Your task to perform on an android device: open chrome privacy settings Image 0: 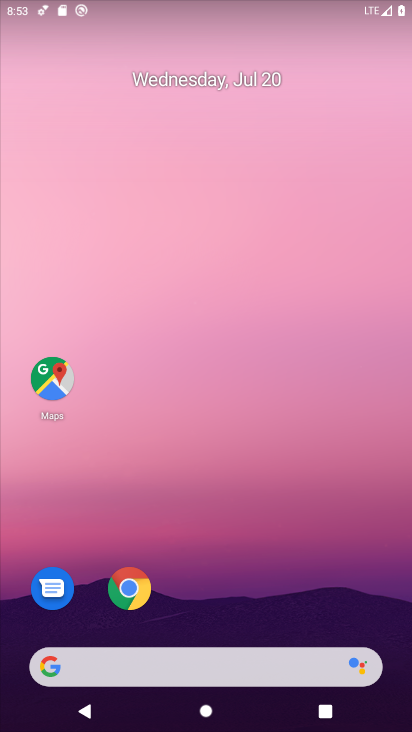
Step 0: press home button
Your task to perform on an android device: open chrome privacy settings Image 1: 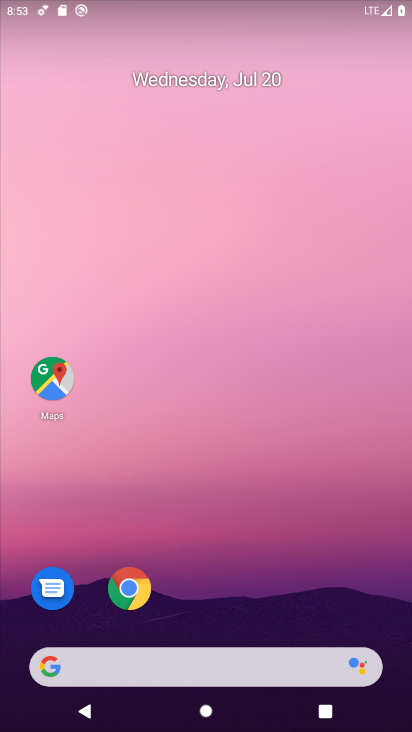
Step 1: click (134, 588)
Your task to perform on an android device: open chrome privacy settings Image 2: 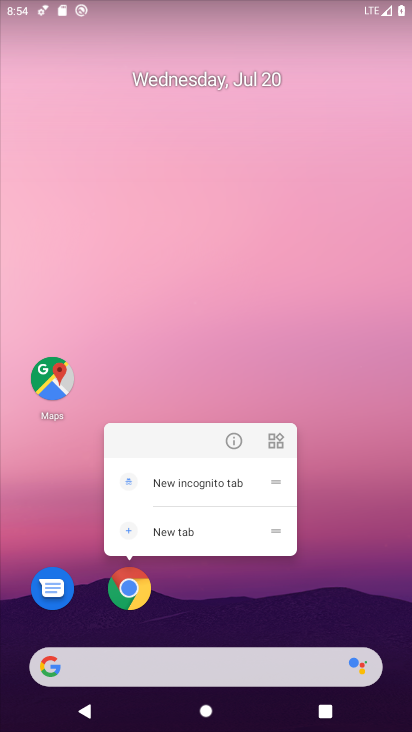
Step 2: click (135, 594)
Your task to perform on an android device: open chrome privacy settings Image 3: 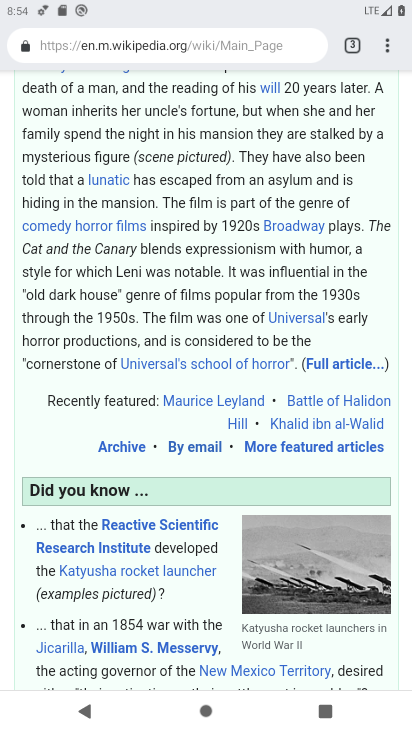
Step 3: click (382, 41)
Your task to perform on an android device: open chrome privacy settings Image 4: 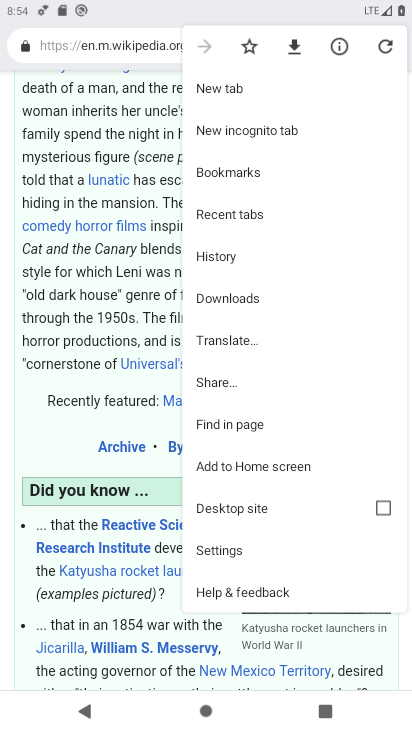
Step 4: click (253, 549)
Your task to perform on an android device: open chrome privacy settings Image 5: 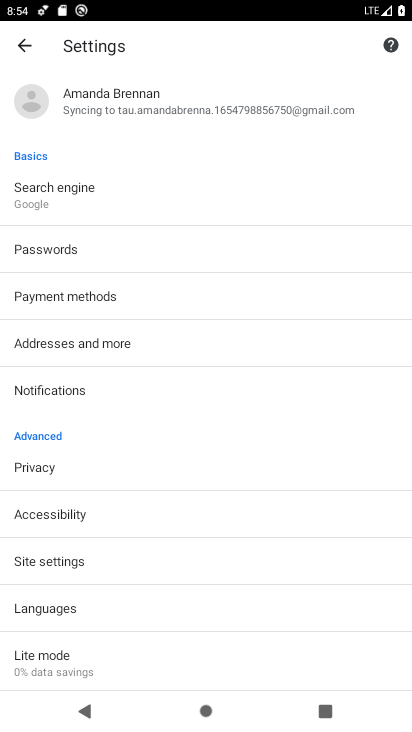
Step 5: click (60, 473)
Your task to perform on an android device: open chrome privacy settings Image 6: 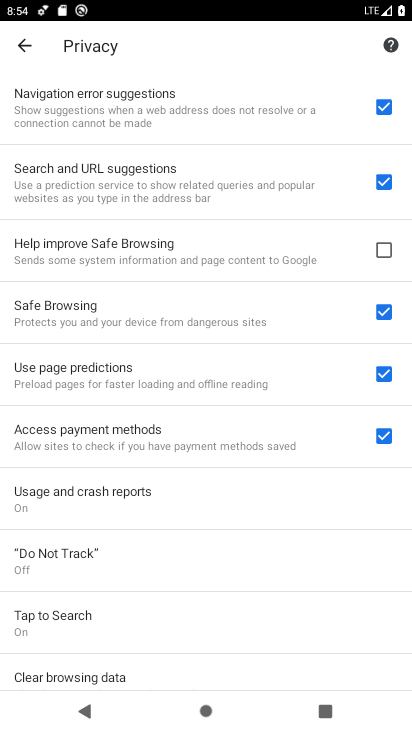
Step 6: task complete